Your task to perform on an android device: remove spam from my inbox in the gmail app Image 0: 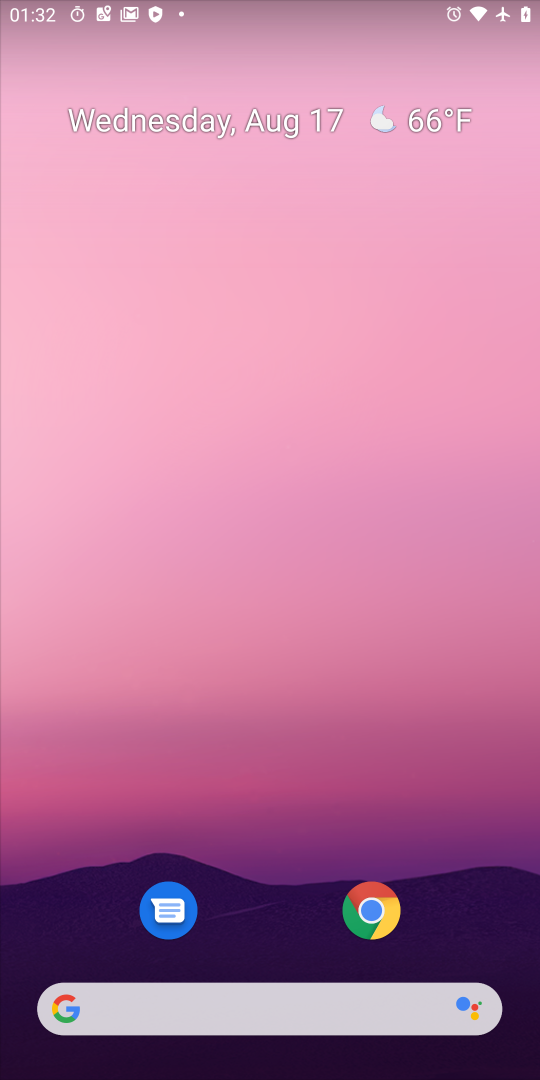
Step 0: drag from (221, 837) to (219, 139)
Your task to perform on an android device: remove spam from my inbox in the gmail app Image 1: 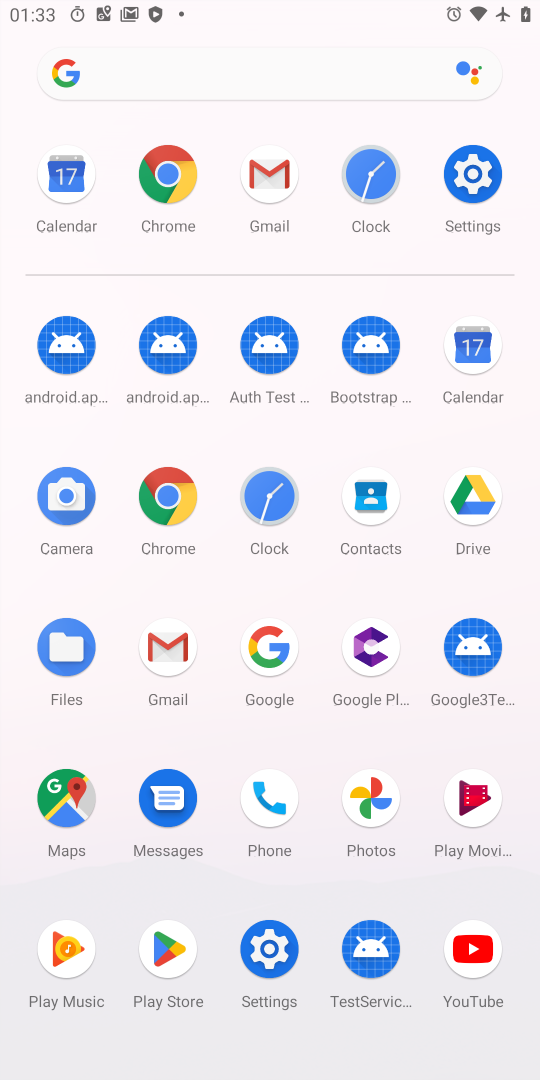
Step 1: click (174, 646)
Your task to perform on an android device: remove spam from my inbox in the gmail app Image 2: 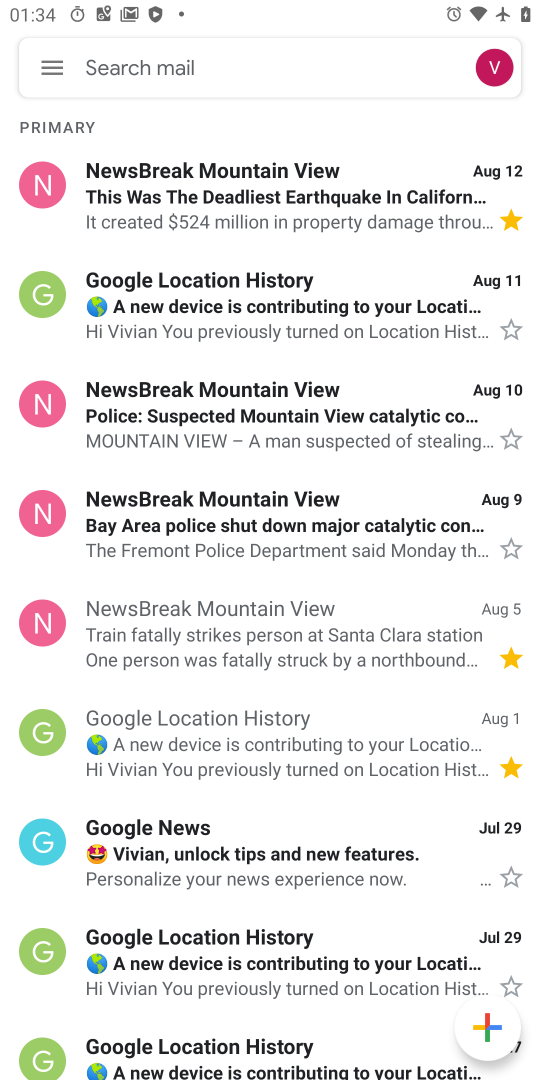
Step 2: task complete